Your task to perform on an android device: Open Maps and search for coffee Image 0: 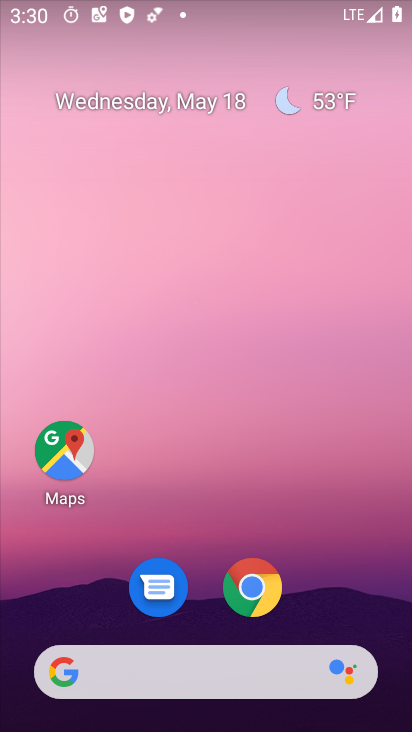
Step 0: drag from (167, 587) to (260, 32)
Your task to perform on an android device: Open Maps and search for coffee Image 1: 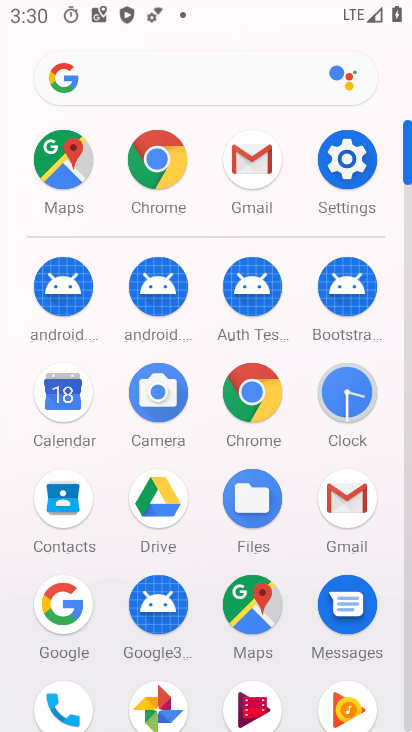
Step 1: click (249, 621)
Your task to perform on an android device: Open Maps and search for coffee Image 2: 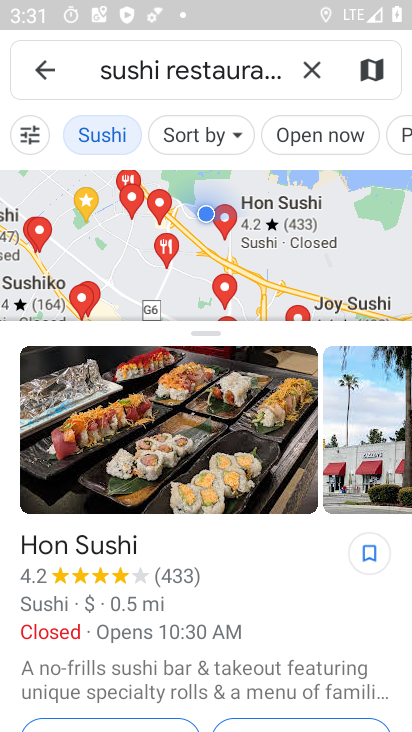
Step 2: click (307, 64)
Your task to perform on an android device: Open Maps and search for coffee Image 3: 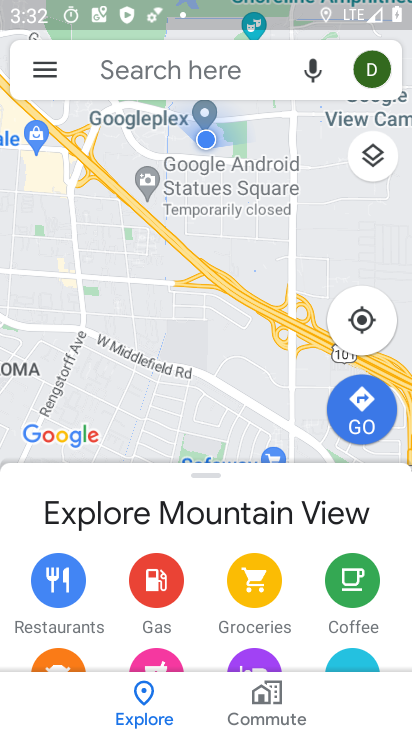
Step 3: click (178, 72)
Your task to perform on an android device: Open Maps and search for coffee Image 4: 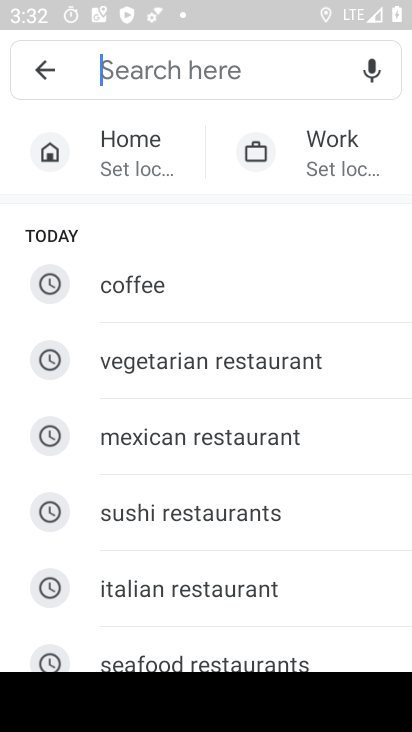
Step 4: click (202, 301)
Your task to perform on an android device: Open Maps and search for coffee Image 5: 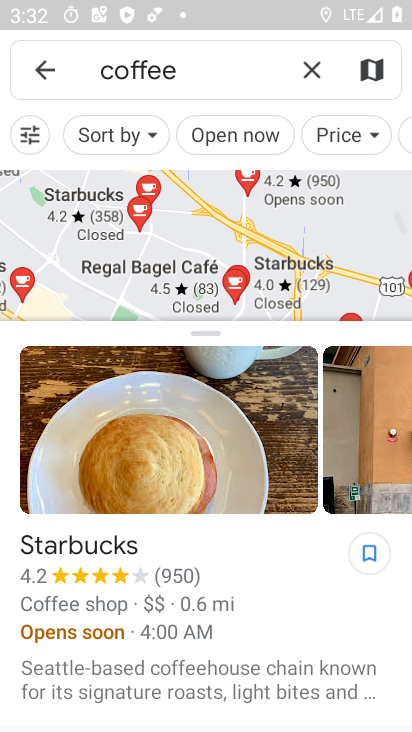
Step 5: task complete